Your task to perform on an android device: turn off improve location accuracy Image 0: 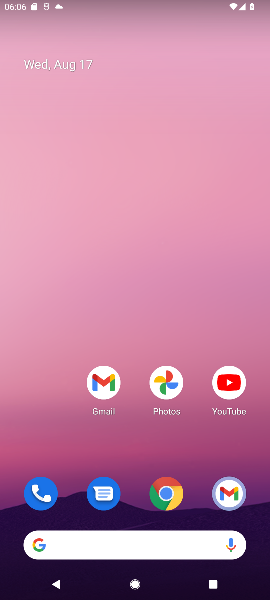
Step 0: press home button
Your task to perform on an android device: turn off improve location accuracy Image 1: 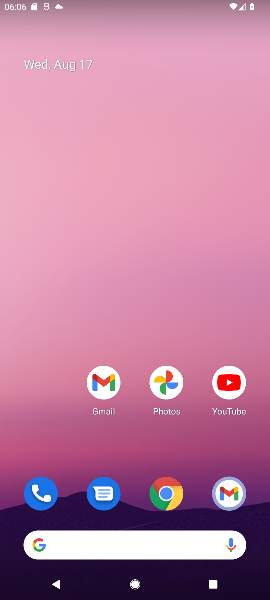
Step 1: drag from (204, 512) to (242, 2)
Your task to perform on an android device: turn off improve location accuracy Image 2: 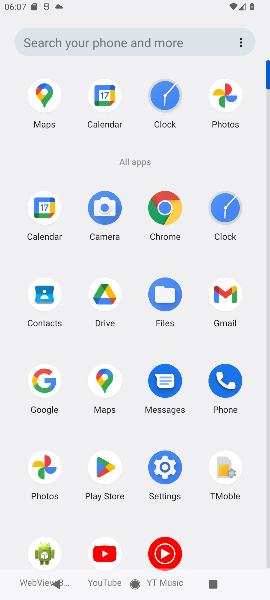
Step 2: click (157, 479)
Your task to perform on an android device: turn off improve location accuracy Image 3: 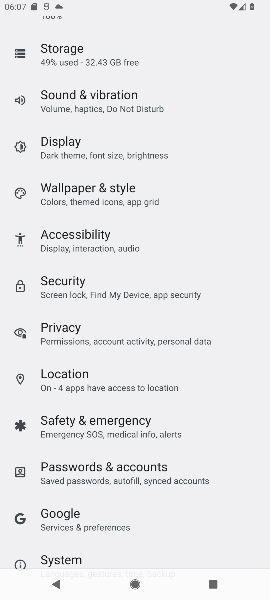
Step 3: click (94, 383)
Your task to perform on an android device: turn off improve location accuracy Image 4: 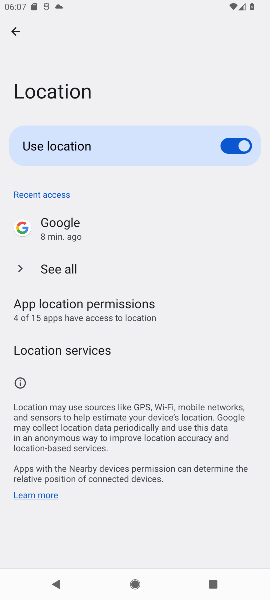
Step 4: click (100, 349)
Your task to perform on an android device: turn off improve location accuracy Image 5: 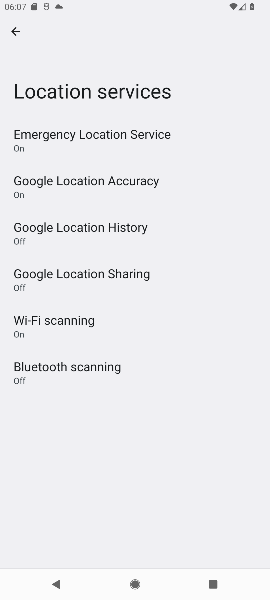
Step 5: click (57, 185)
Your task to perform on an android device: turn off improve location accuracy Image 6: 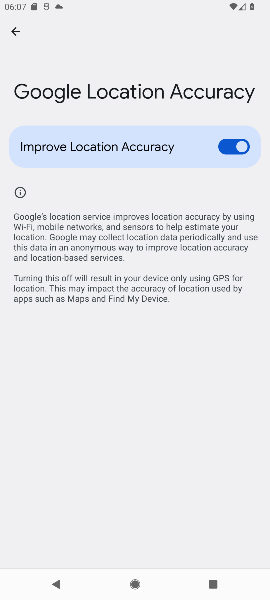
Step 6: click (237, 137)
Your task to perform on an android device: turn off improve location accuracy Image 7: 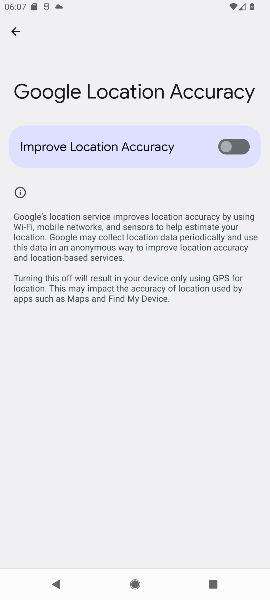
Step 7: task complete